Your task to perform on an android device: see sites visited before in the chrome app Image 0: 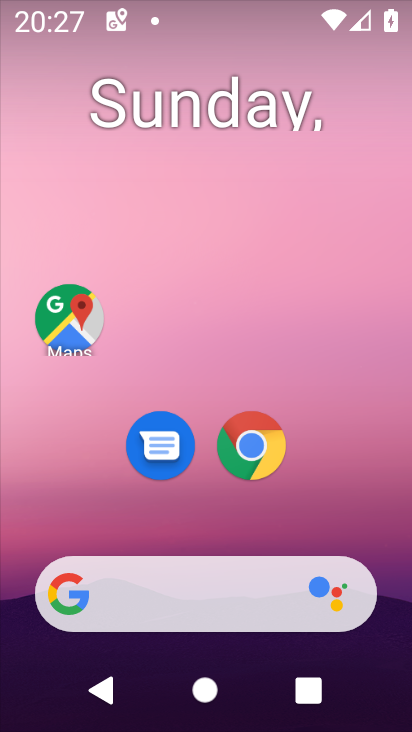
Step 0: click (258, 445)
Your task to perform on an android device: see sites visited before in the chrome app Image 1: 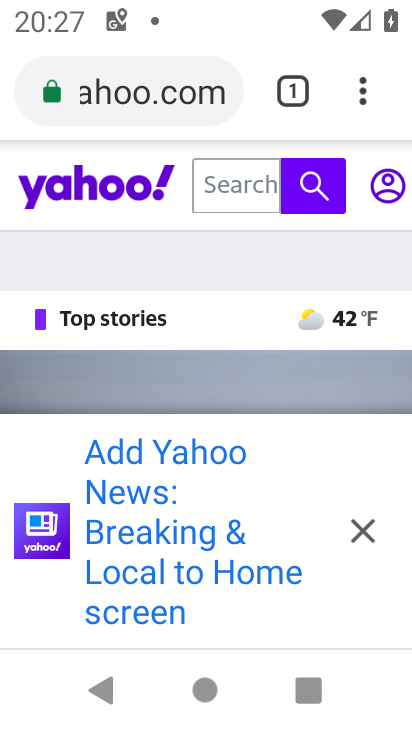
Step 1: click (356, 93)
Your task to perform on an android device: see sites visited before in the chrome app Image 2: 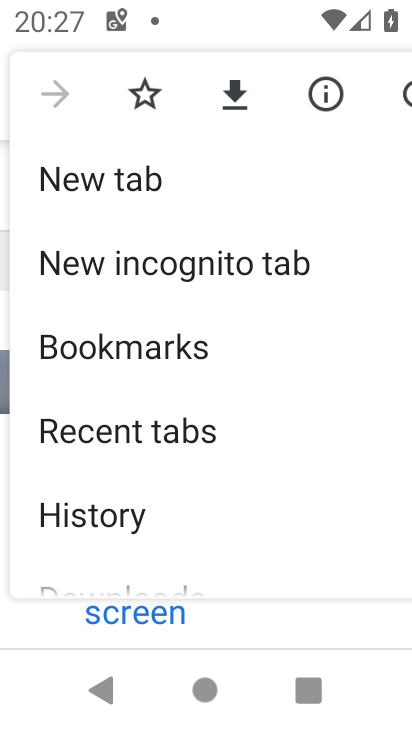
Step 2: click (130, 498)
Your task to perform on an android device: see sites visited before in the chrome app Image 3: 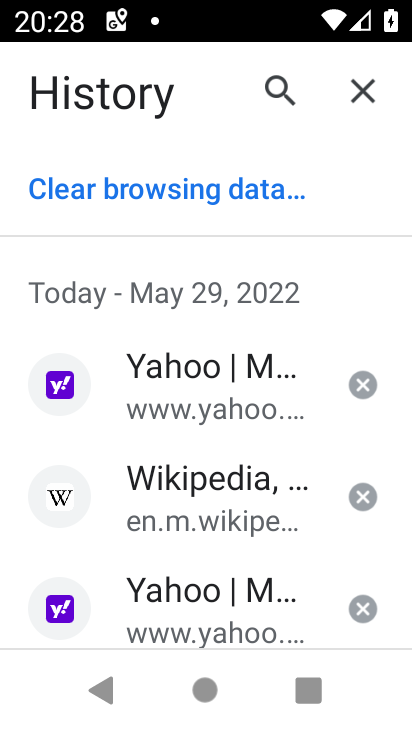
Step 3: task complete